Your task to perform on an android device: What's the weather going to be this weekend? Image 0: 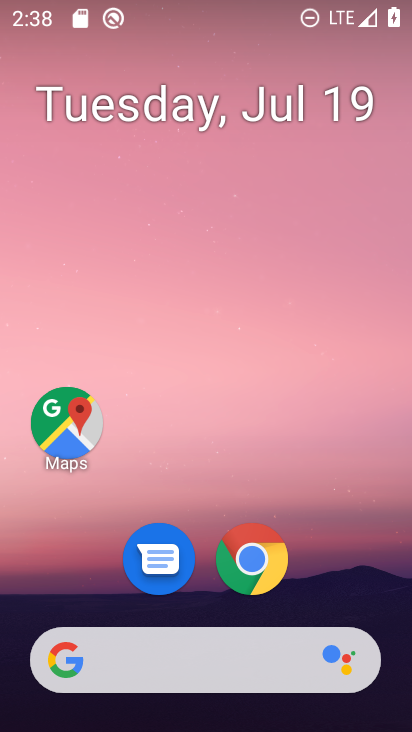
Step 0: drag from (245, 547) to (359, 11)
Your task to perform on an android device: What's the weather going to be this weekend? Image 1: 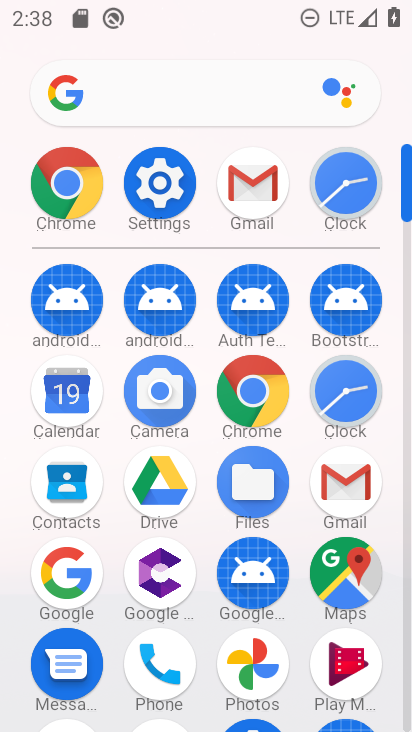
Step 1: click (82, 567)
Your task to perform on an android device: What's the weather going to be this weekend? Image 2: 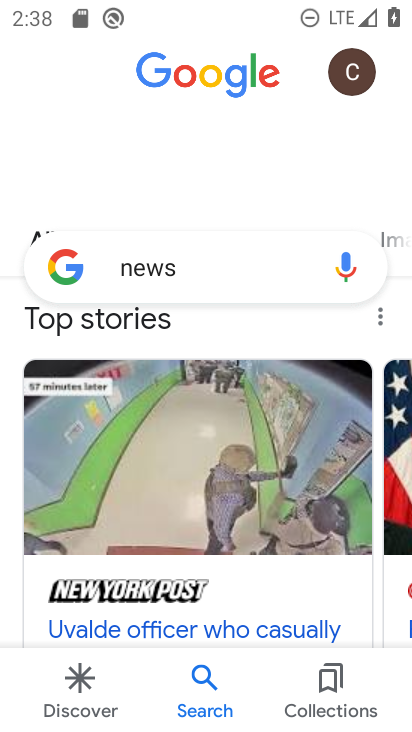
Step 2: click (251, 274)
Your task to perform on an android device: What's the weather going to be this weekend? Image 3: 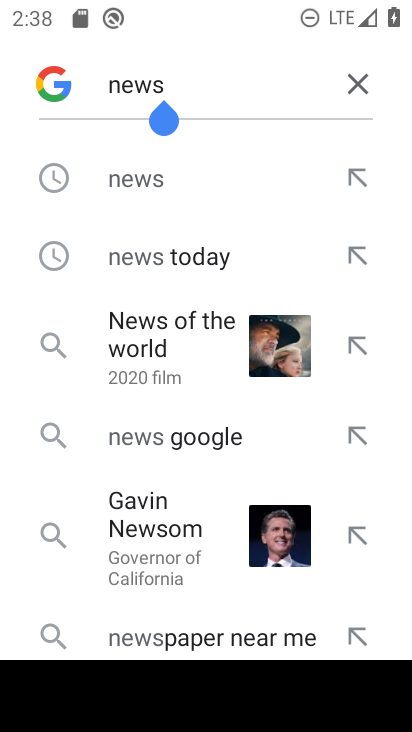
Step 3: click (361, 82)
Your task to perform on an android device: What's the weather going to be this weekend? Image 4: 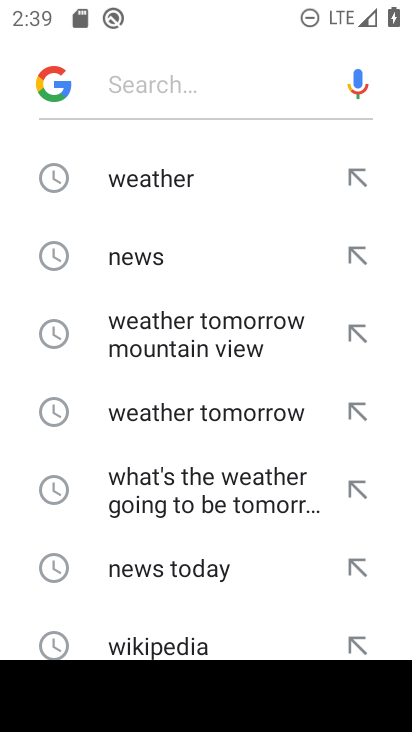
Step 4: click (190, 187)
Your task to perform on an android device: What's the weather going to be this weekend? Image 5: 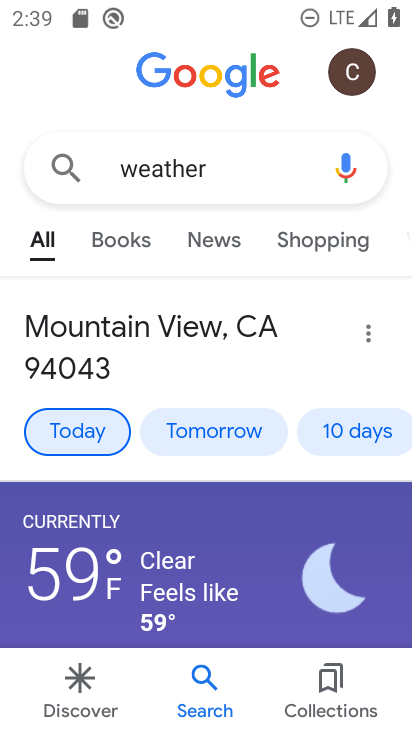
Step 5: click (352, 430)
Your task to perform on an android device: What's the weather going to be this weekend? Image 6: 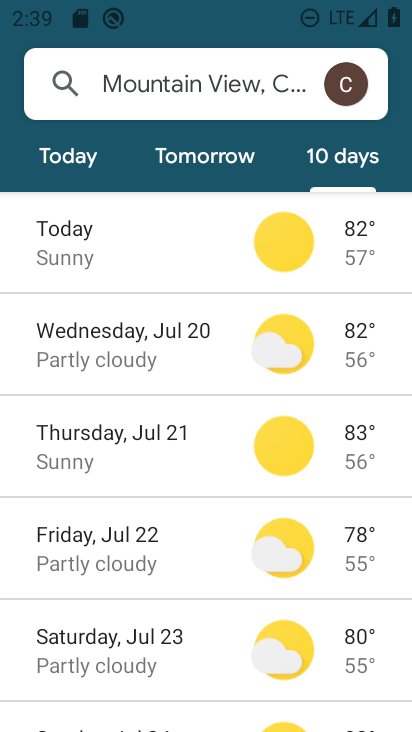
Step 6: task complete